Your task to perform on an android device: Search for sushi restaurants on Maps Image 0: 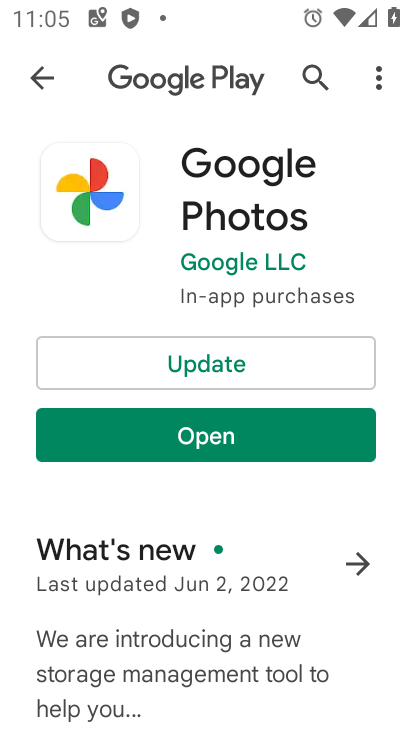
Step 0: press home button
Your task to perform on an android device: Search for sushi restaurants on Maps Image 1: 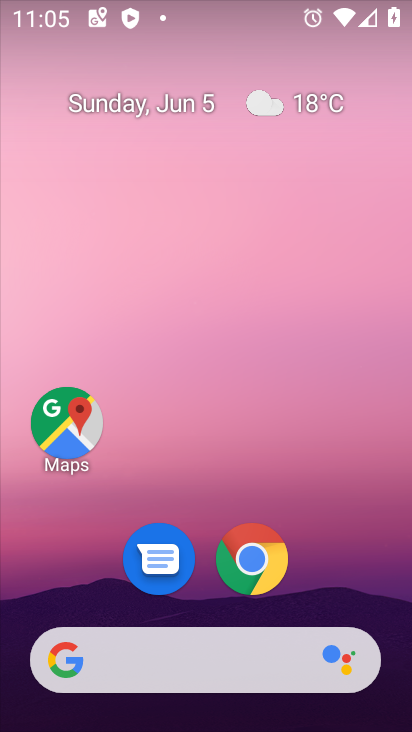
Step 1: click (41, 428)
Your task to perform on an android device: Search for sushi restaurants on Maps Image 2: 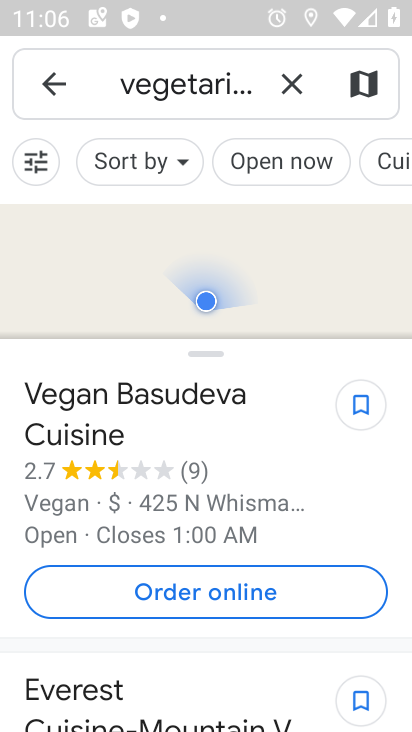
Step 2: click (292, 80)
Your task to perform on an android device: Search for sushi restaurants on Maps Image 3: 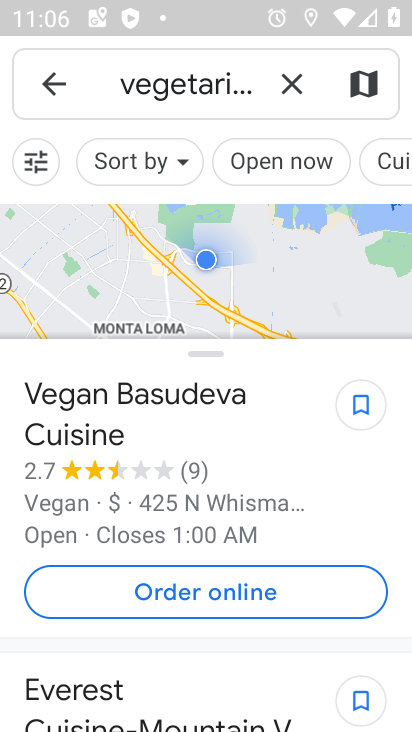
Step 3: type "sushi restaurants"
Your task to perform on an android device: Search for sushi restaurants on Maps Image 4: 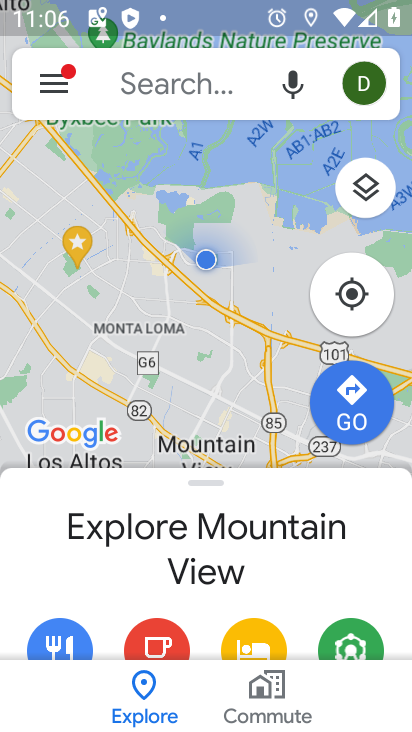
Step 4: click (229, 77)
Your task to perform on an android device: Search for sushi restaurants on Maps Image 5: 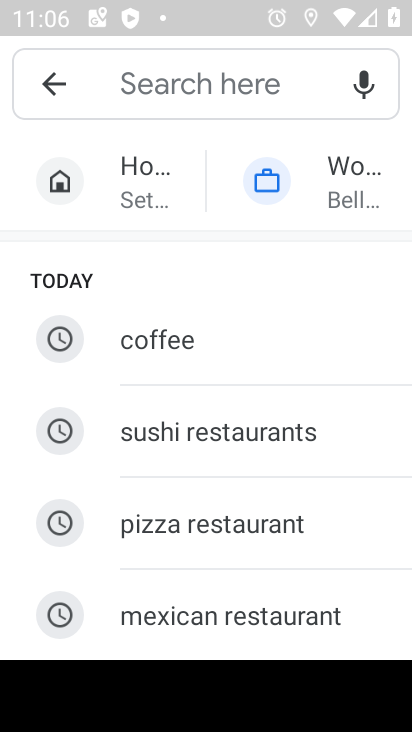
Step 5: type "sushi restaurants"
Your task to perform on an android device: Search for sushi restaurants on Maps Image 6: 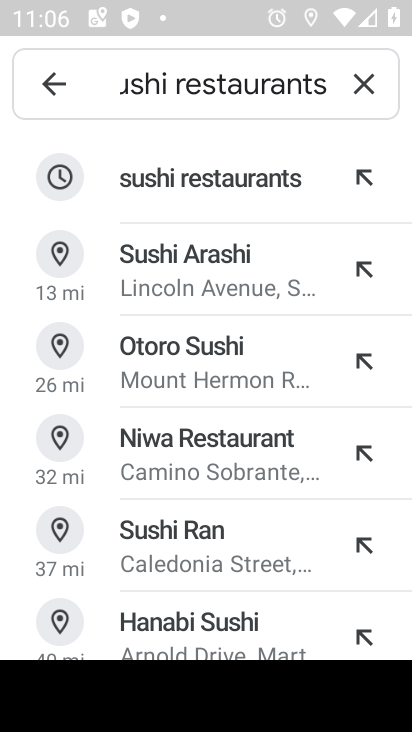
Step 6: click (210, 185)
Your task to perform on an android device: Search for sushi restaurants on Maps Image 7: 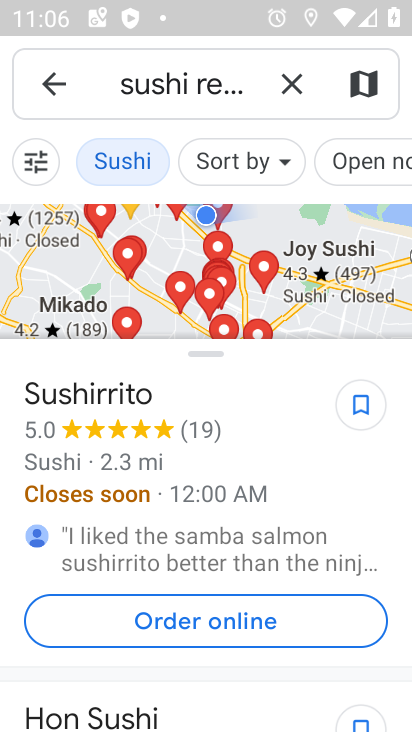
Step 7: task complete